Your task to perform on an android device: change timer sound Image 0: 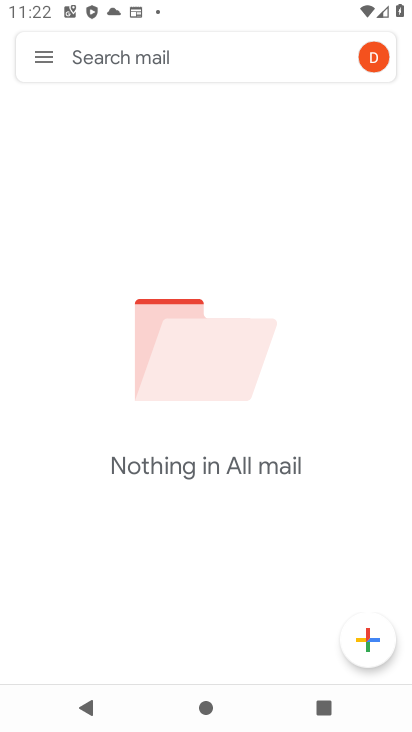
Step 0: press home button
Your task to perform on an android device: change timer sound Image 1: 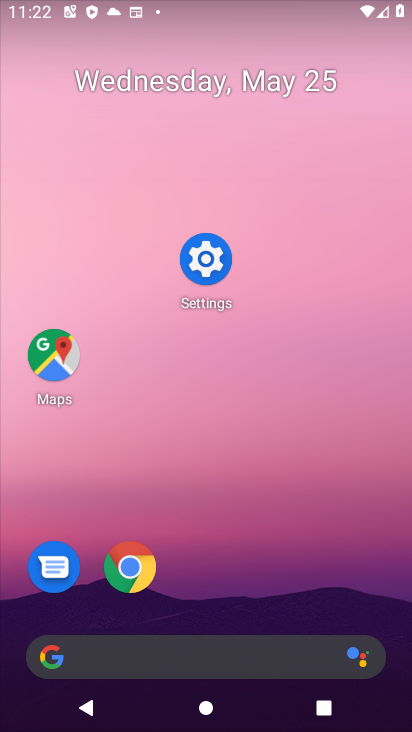
Step 1: drag from (268, 608) to (292, 169)
Your task to perform on an android device: change timer sound Image 2: 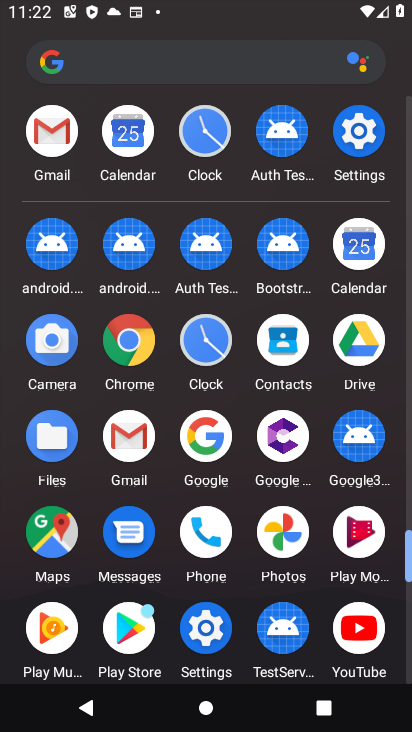
Step 2: click (222, 117)
Your task to perform on an android device: change timer sound Image 3: 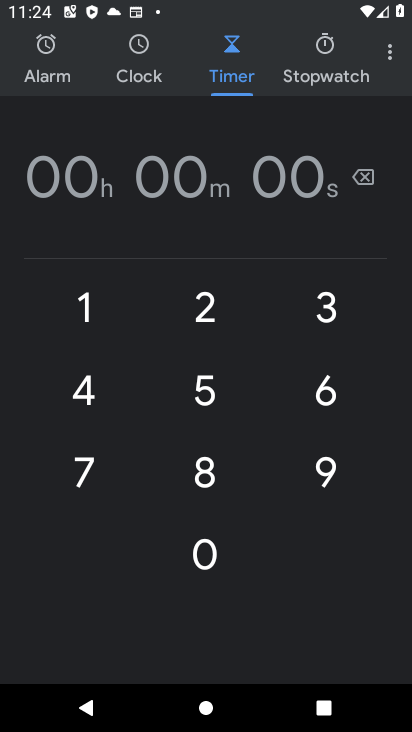
Step 3: click (397, 47)
Your task to perform on an android device: change timer sound Image 4: 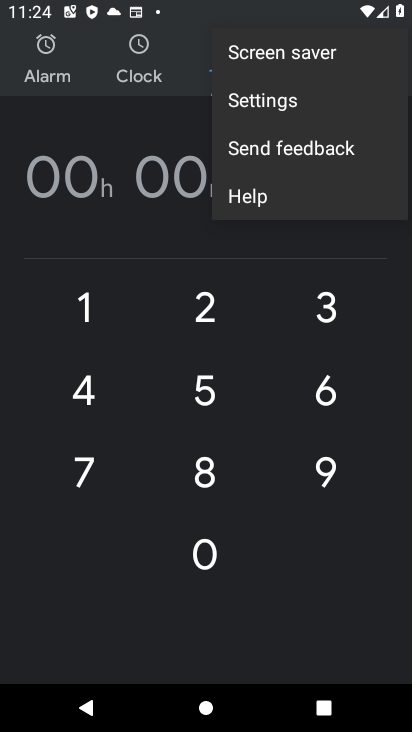
Step 4: click (264, 109)
Your task to perform on an android device: change timer sound Image 5: 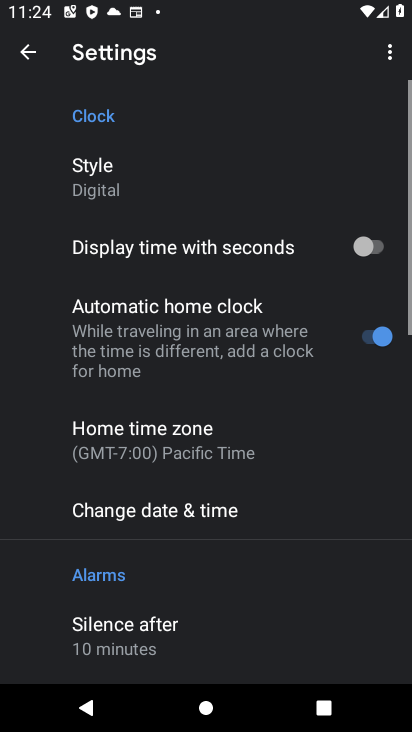
Step 5: drag from (184, 563) to (229, 176)
Your task to perform on an android device: change timer sound Image 6: 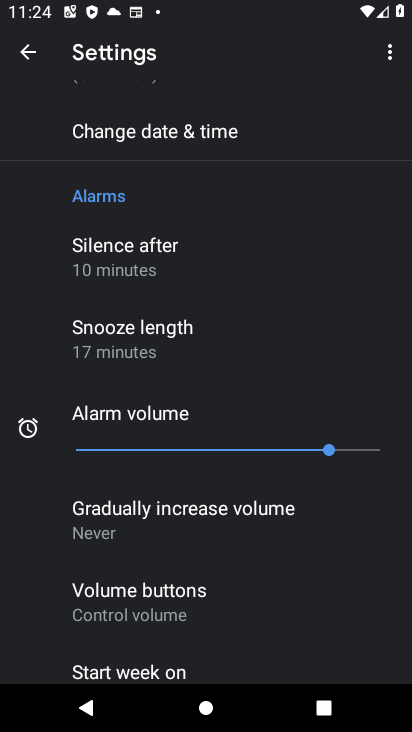
Step 6: drag from (193, 625) to (234, 93)
Your task to perform on an android device: change timer sound Image 7: 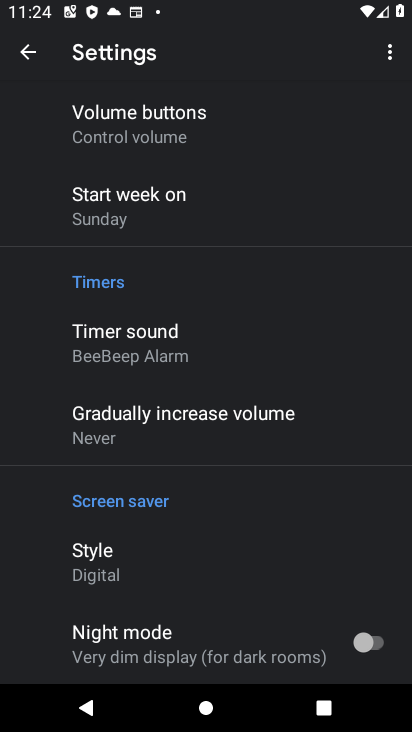
Step 7: click (159, 331)
Your task to perform on an android device: change timer sound Image 8: 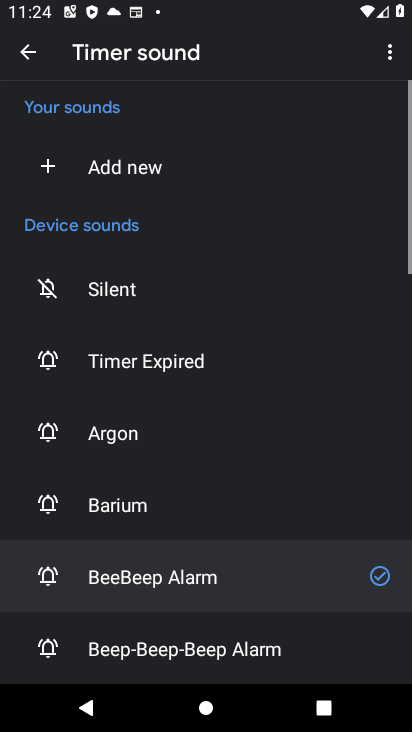
Step 8: click (163, 413)
Your task to perform on an android device: change timer sound Image 9: 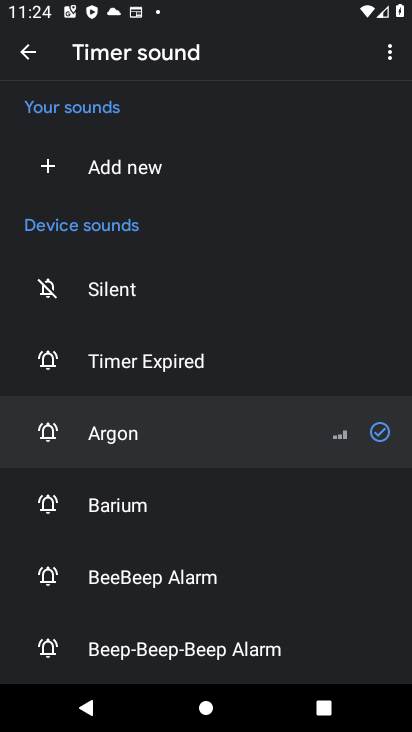
Step 9: task complete